Your task to perform on an android device: Open Wikipedia Image 0: 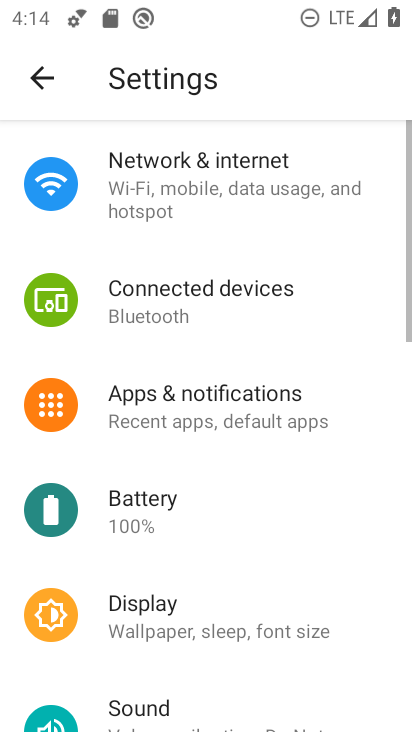
Step 0: press home button
Your task to perform on an android device: Open Wikipedia Image 1: 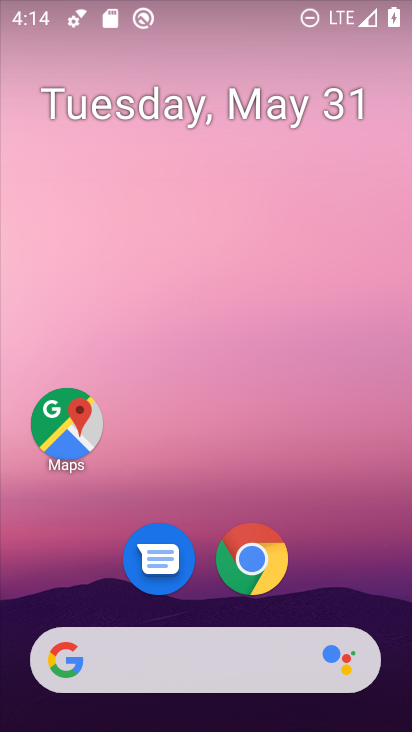
Step 1: click (255, 561)
Your task to perform on an android device: Open Wikipedia Image 2: 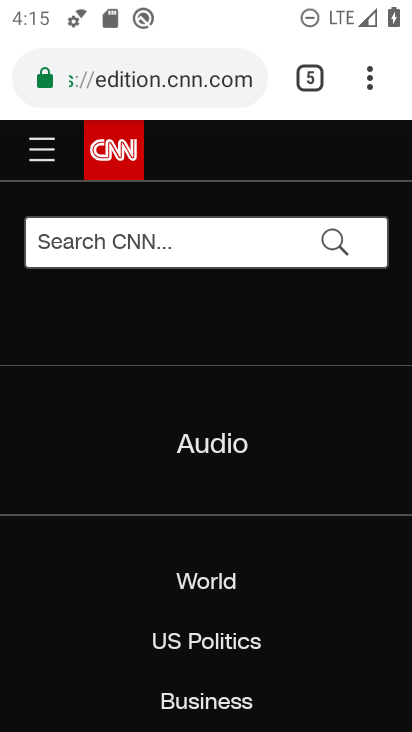
Step 2: click (369, 85)
Your task to perform on an android device: Open Wikipedia Image 3: 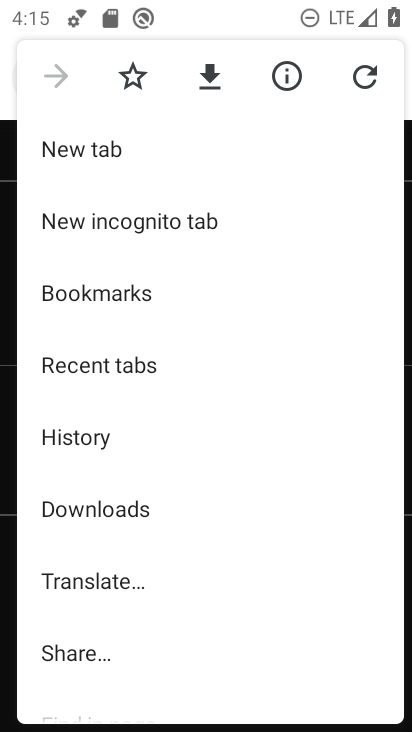
Step 3: click (84, 152)
Your task to perform on an android device: Open Wikipedia Image 4: 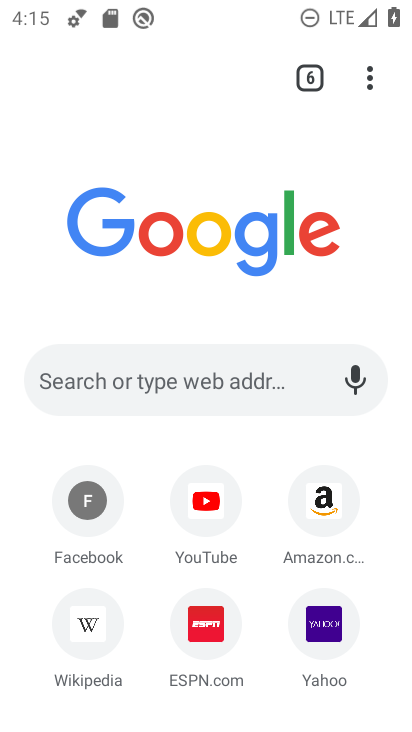
Step 4: click (90, 630)
Your task to perform on an android device: Open Wikipedia Image 5: 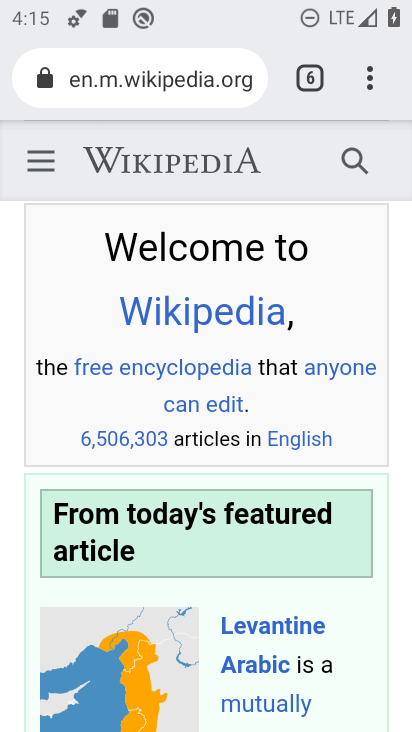
Step 5: task complete